Your task to perform on an android device: search for starred emails in the gmail app Image 0: 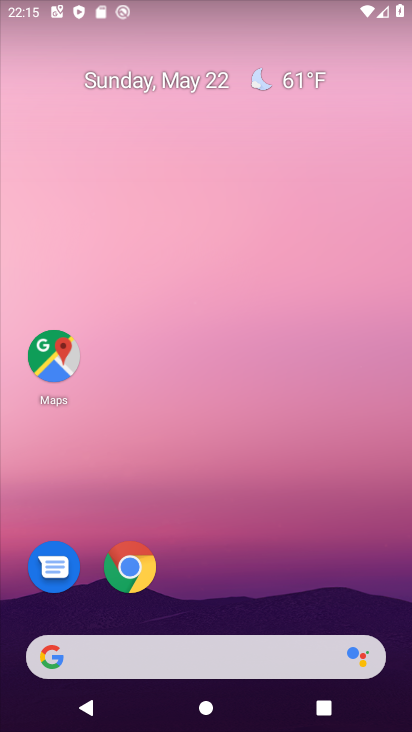
Step 0: drag from (201, 628) to (298, 39)
Your task to perform on an android device: search for starred emails in the gmail app Image 1: 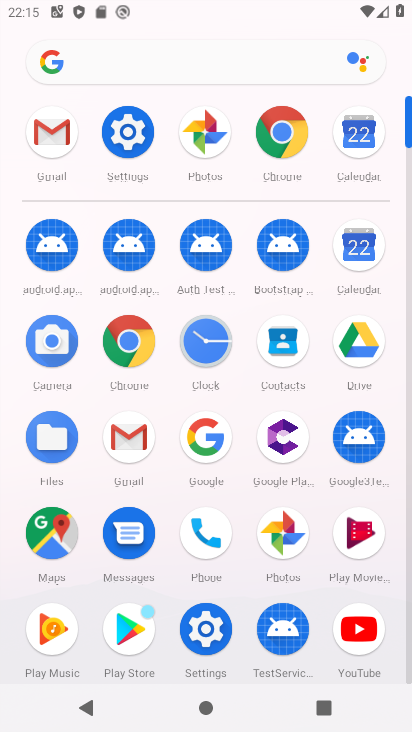
Step 1: click (123, 435)
Your task to perform on an android device: search for starred emails in the gmail app Image 2: 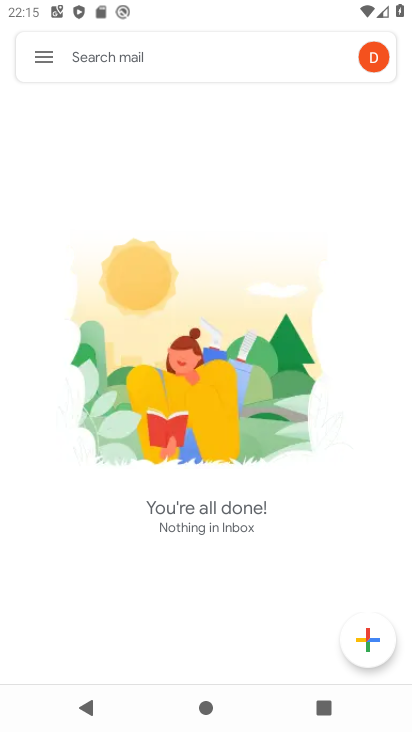
Step 2: click (46, 51)
Your task to perform on an android device: search for starred emails in the gmail app Image 3: 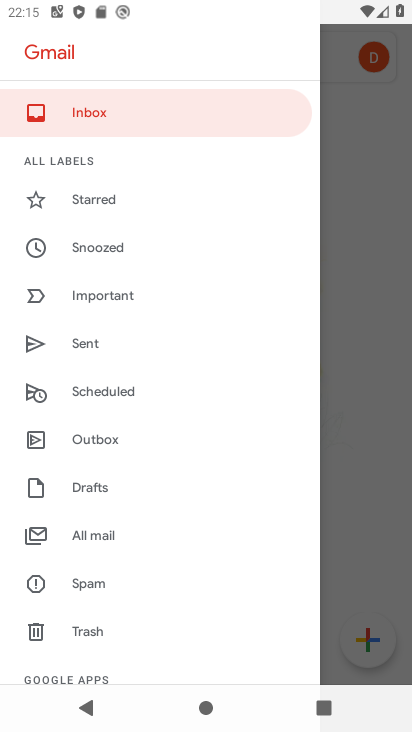
Step 3: click (81, 209)
Your task to perform on an android device: search for starred emails in the gmail app Image 4: 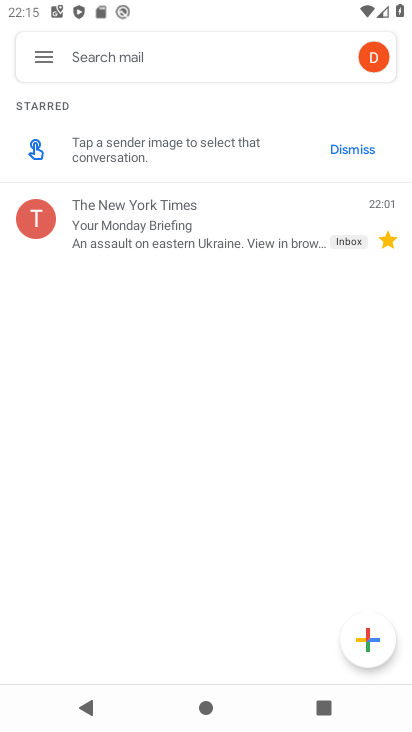
Step 4: task complete